Your task to perform on an android device: Open network settings Image 0: 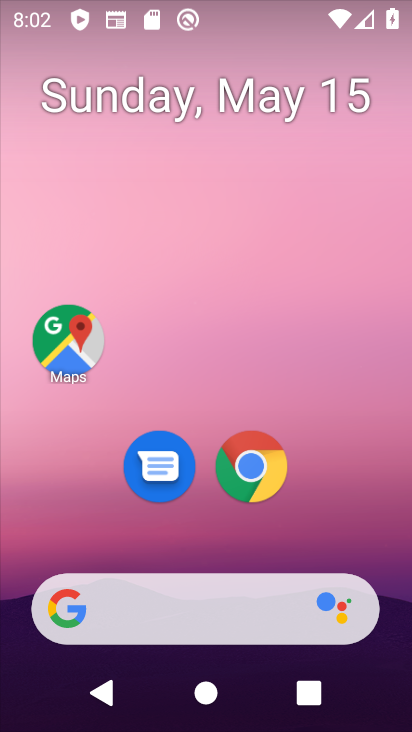
Step 0: drag from (236, 554) to (323, 23)
Your task to perform on an android device: Open network settings Image 1: 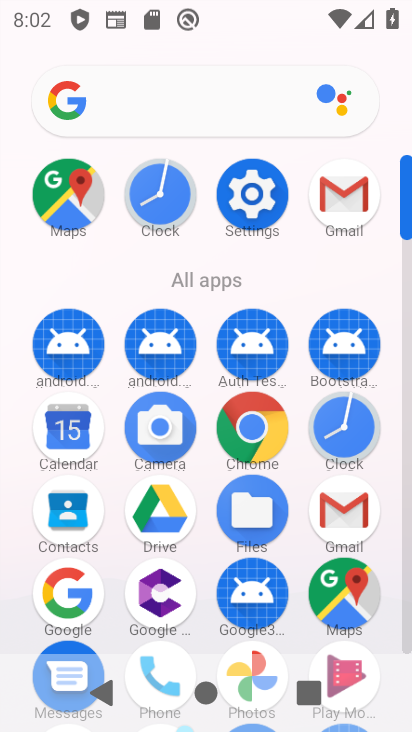
Step 1: click (240, 205)
Your task to perform on an android device: Open network settings Image 2: 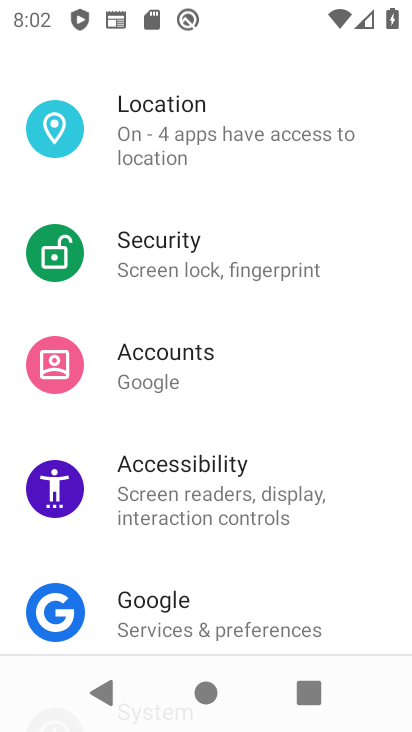
Step 2: drag from (239, 205) to (260, 669)
Your task to perform on an android device: Open network settings Image 3: 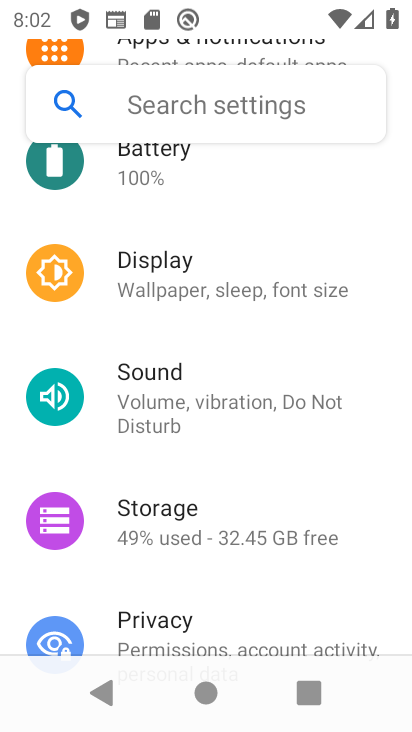
Step 3: drag from (174, 281) to (128, 703)
Your task to perform on an android device: Open network settings Image 4: 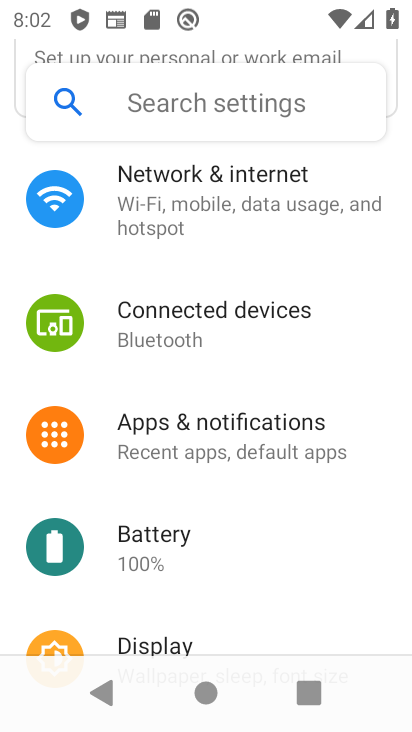
Step 4: click (195, 213)
Your task to perform on an android device: Open network settings Image 5: 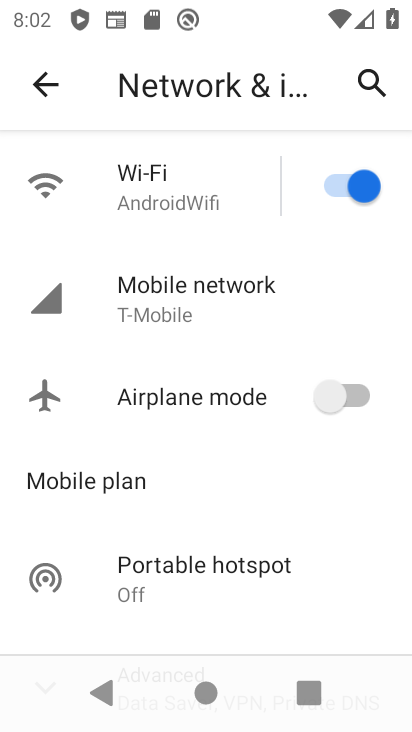
Step 5: click (214, 306)
Your task to perform on an android device: Open network settings Image 6: 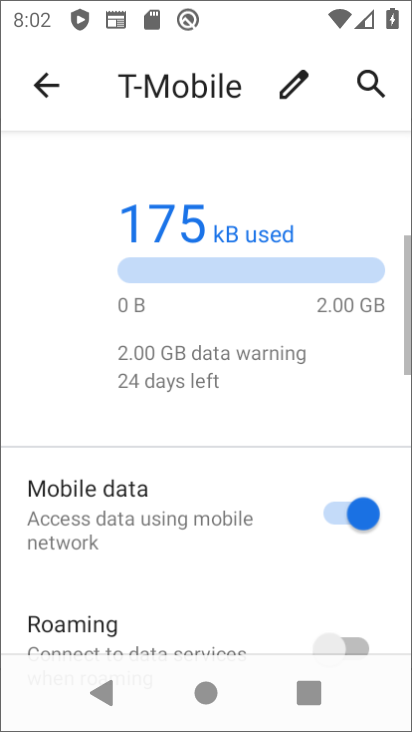
Step 6: task complete